Your task to perform on an android device: turn off smart reply in the gmail app Image 0: 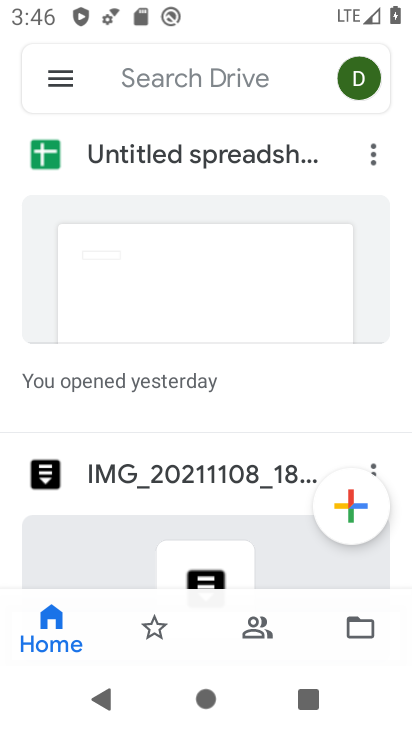
Step 0: press home button
Your task to perform on an android device: turn off smart reply in the gmail app Image 1: 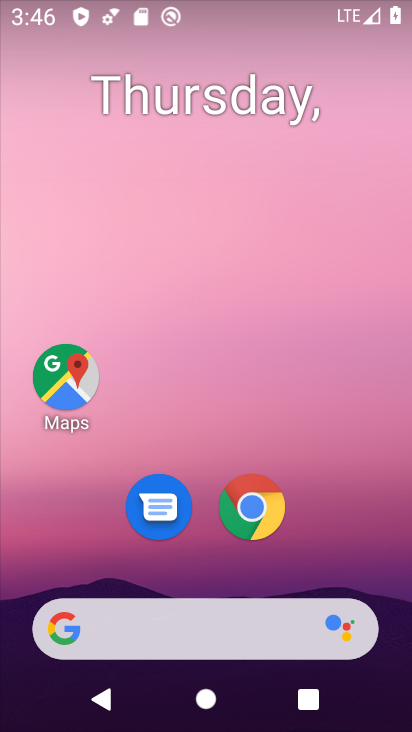
Step 1: drag from (380, 558) to (370, 81)
Your task to perform on an android device: turn off smart reply in the gmail app Image 2: 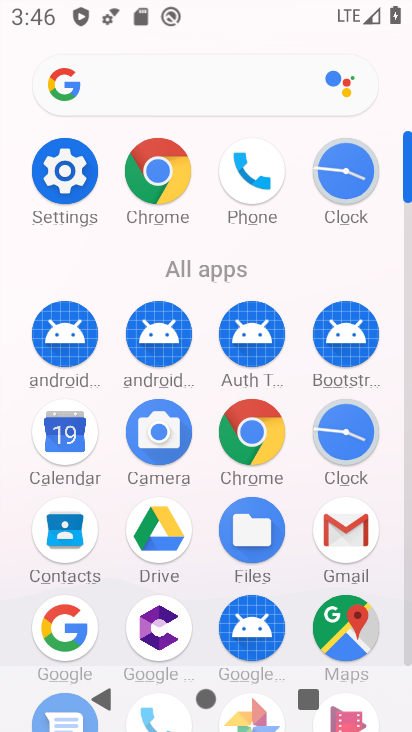
Step 2: click (341, 534)
Your task to perform on an android device: turn off smart reply in the gmail app Image 3: 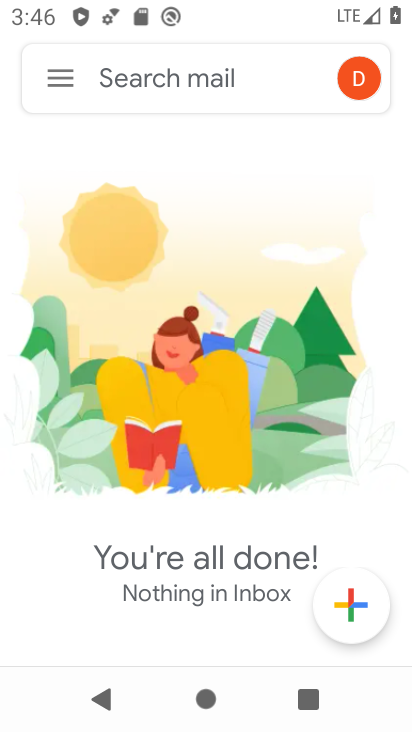
Step 3: click (62, 84)
Your task to perform on an android device: turn off smart reply in the gmail app Image 4: 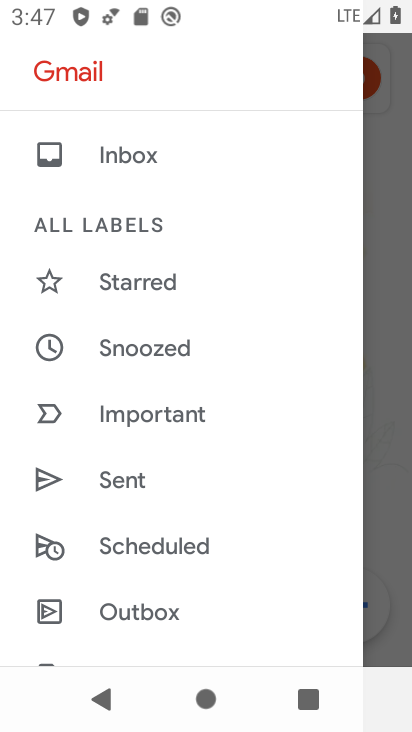
Step 4: drag from (180, 606) to (271, 187)
Your task to perform on an android device: turn off smart reply in the gmail app Image 5: 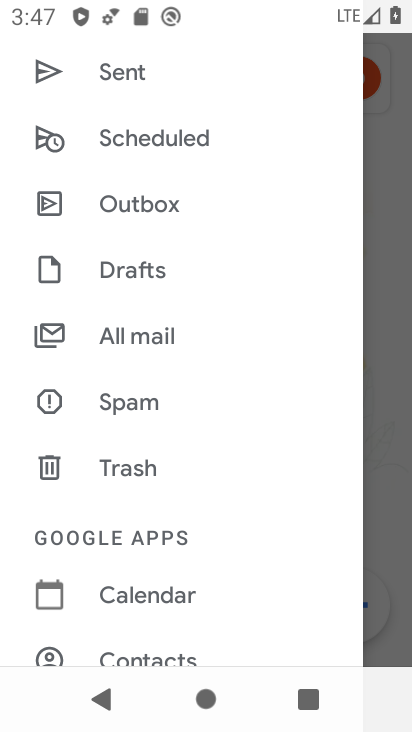
Step 5: drag from (216, 509) to (282, 95)
Your task to perform on an android device: turn off smart reply in the gmail app Image 6: 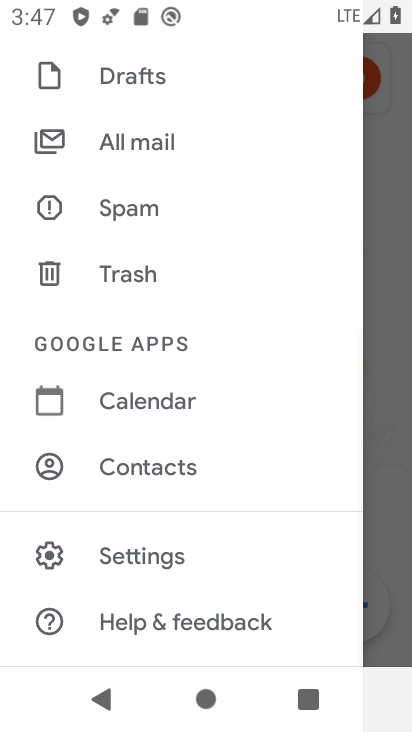
Step 6: click (145, 565)
Your task to perform on an android device: turn off smart reply in the gmail app Image 7: 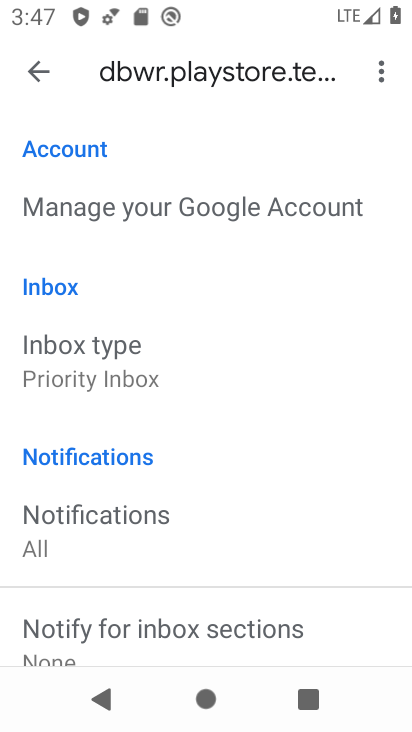
Step 7: click (162, 340)
Your task to perform on an android device: turn off smart reply in the gmail app Image 8: 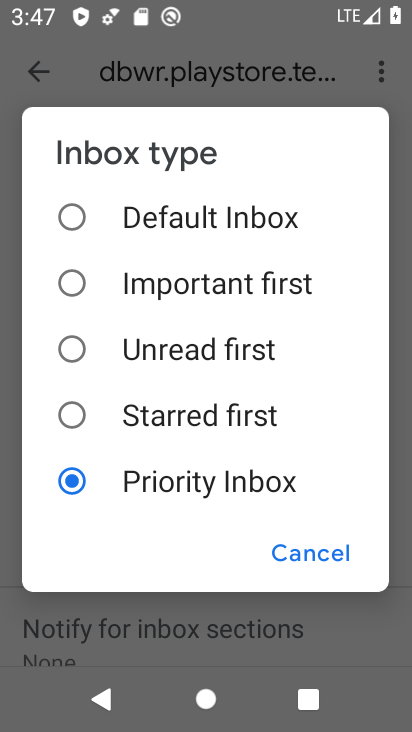
Step 8: click (320, 546)
Your task to perform on an android device: turn off smart reply in the gmail app Image 9: 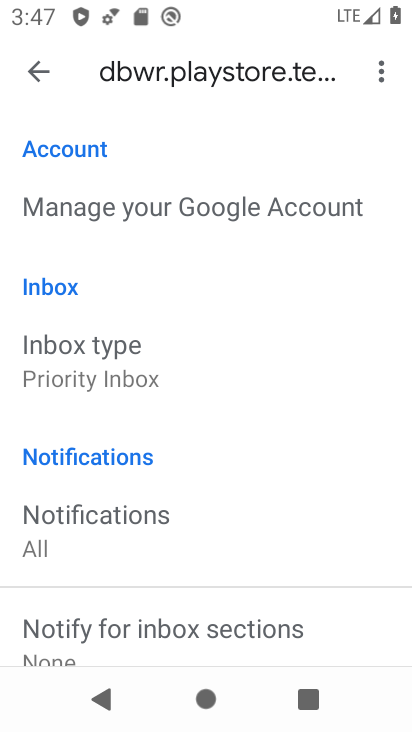
Step 9: drag from (313, 559) to (270, 206)
Your task to perform on an android device: turn off smart reply in the gmail app Image 10: 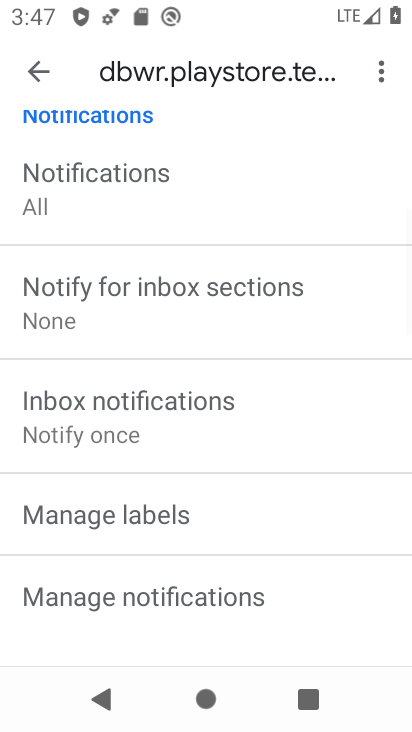
Step 10: drag from (190, 593) to (249, 244)
Your task to perform on an android device: turn off smart reply in the gmail app Image 11: 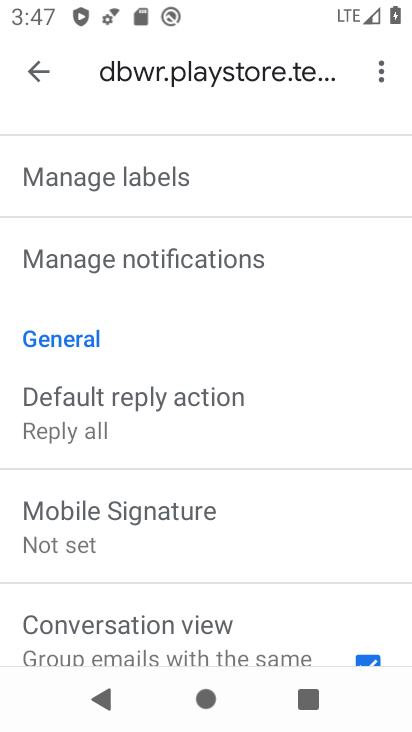
Step 11: drag from (236, 553) to (317, 149)
Your task to perform on an android device: turn off smart reply in the gmail app Image 12: 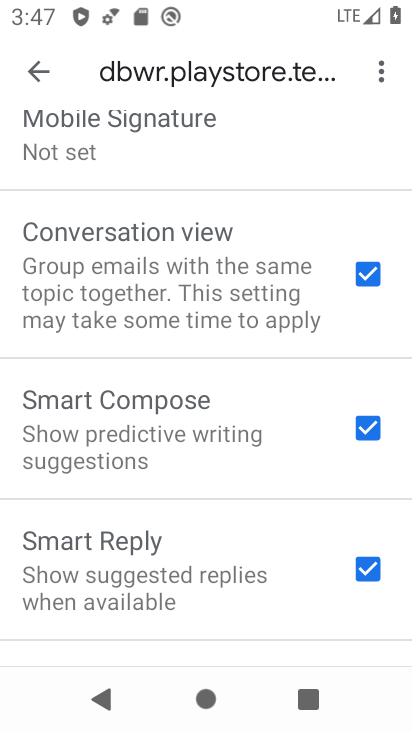
Step 12: click (185, 558)
Your task to perform on an android device: turn off smart reply in the gmail app Image 13: 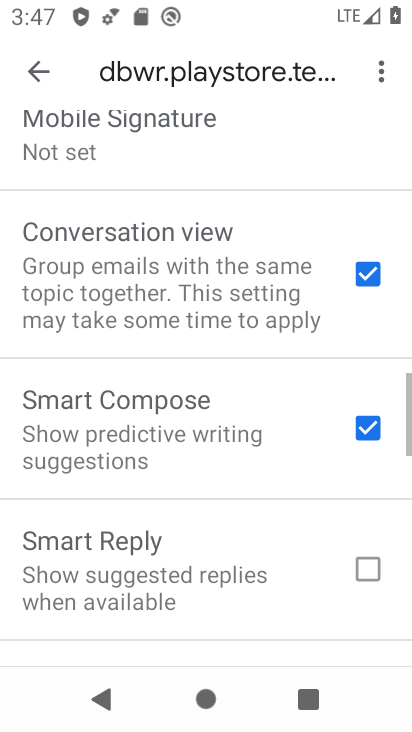
Step 13: task complete